Your task to perform on an android device: Search for seafood restaurants on Google Maps Image 0: 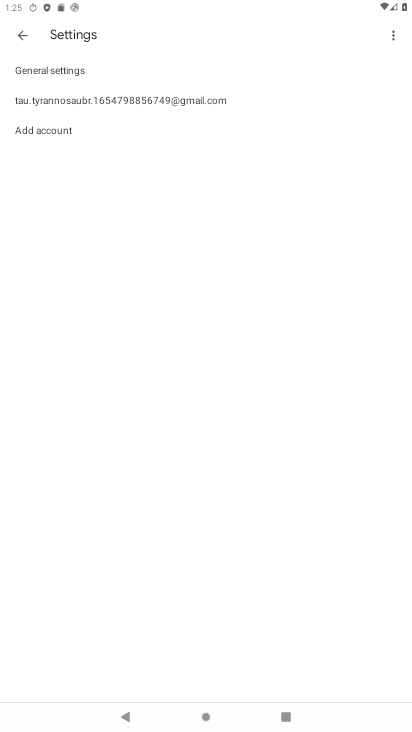
Step 0: press home button
Your task to perform on an android device: Search for seafood restaurants on Google Maps Image 1: 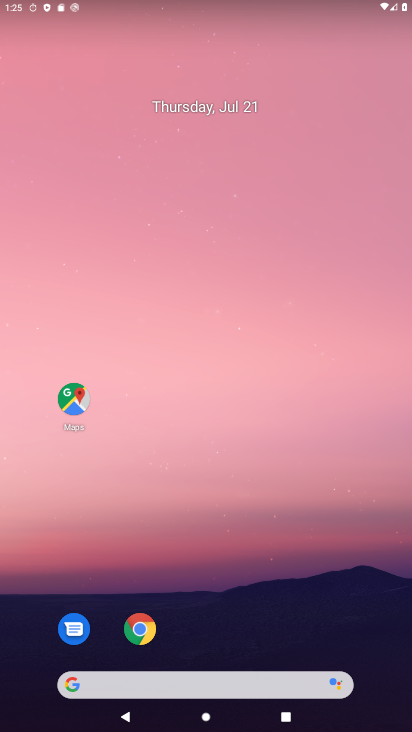
Step 1: click (80, 402)
Your task to perform on an android device: Search for seafood restaurants on Google Maps Image 2: 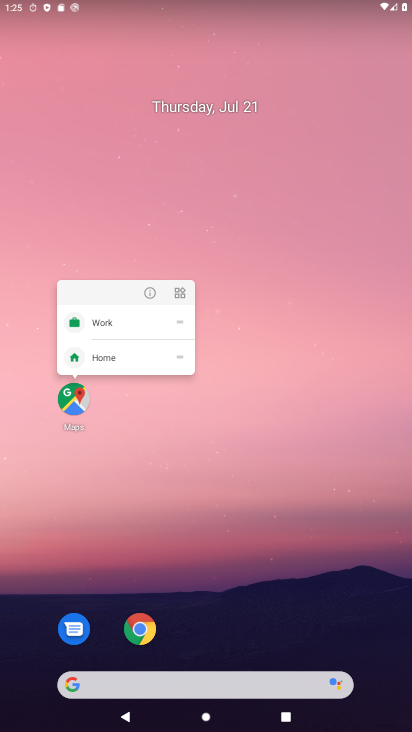
Step 2: click (71, 367)
Your task to perform on an android device: Search for seafood restaurants on Google Maps Image 3: 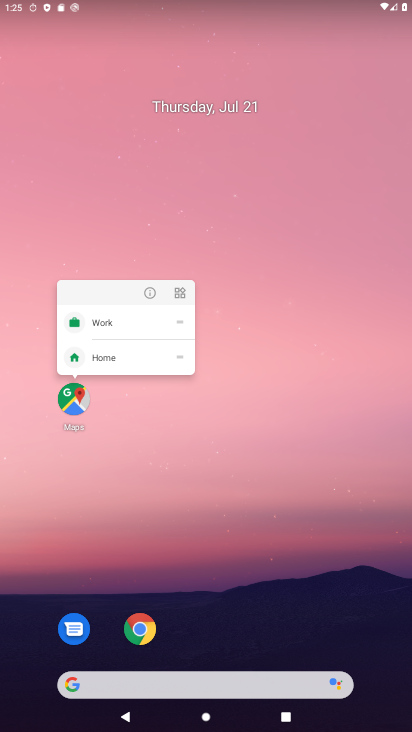
Step 3: click (60, 404)
Your task to perform on an android device: Search for seafood restaurants on Google Maps Image 4: 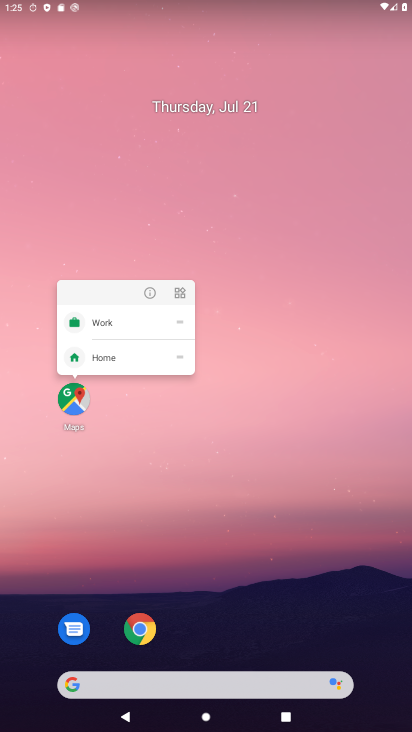
Step 4: click (65, 403)
Your task to perform on an android device: Search for seafood restaurants on Google Maps Image 5: 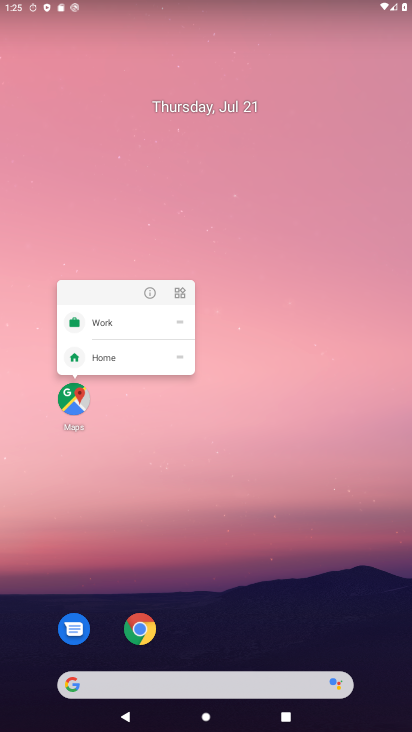
Step 5: click (71, 406)
Your task to perform on an android device: Search for seafood restaurants on Google Maps Image 6: 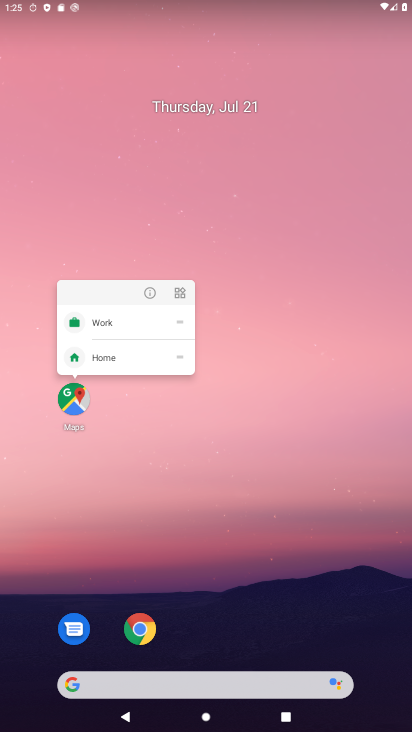
Step 6: task complete